Your task to perform on an android device: Open the calendar and show me this week's events Image 0: 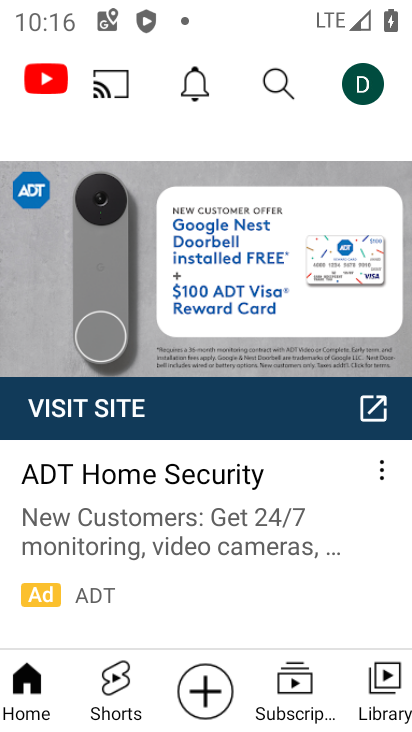
Step 0: press home button
Your task to perform on an android device: Open the calendar and show me this week's events Image 1: 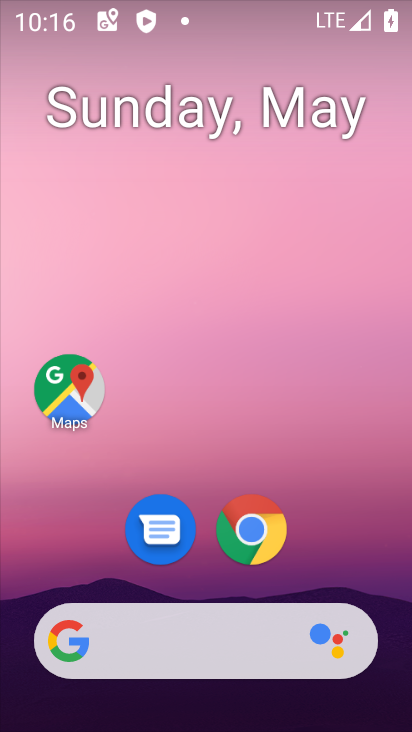
Step 1: drag from (366, 553) to (247, 110)
Your task to perform on an android device: Open the calendar and show me this week's events Image 2: 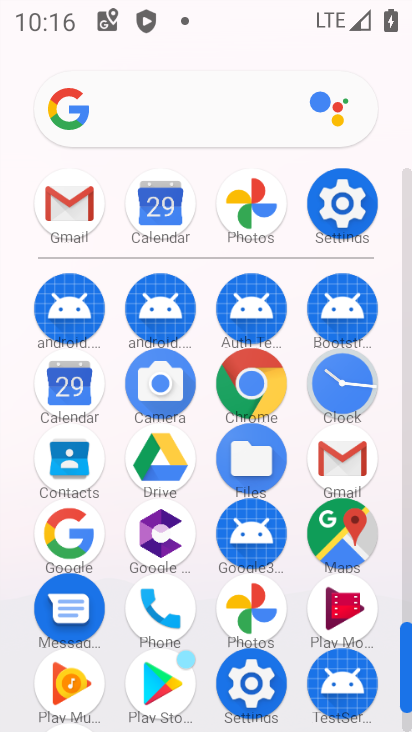
Step 2: click (76, 480)
Your task to perform on an android device: Open the calendar and show me this week's events Image 3: 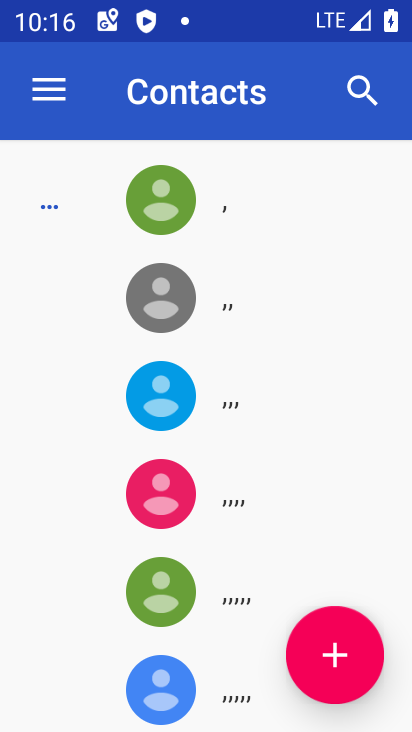
Step 3: press home button
Your task to perform on an android device: Open the calendar and show me this week's events Image 4: 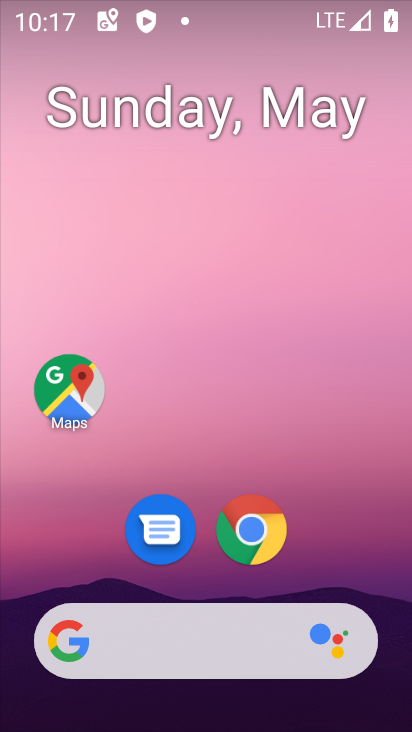
Step 4: drag from (282, 318) to (214, 8)
Your task to perform on an android device: Open the calendar and show me this week's events Image 5: 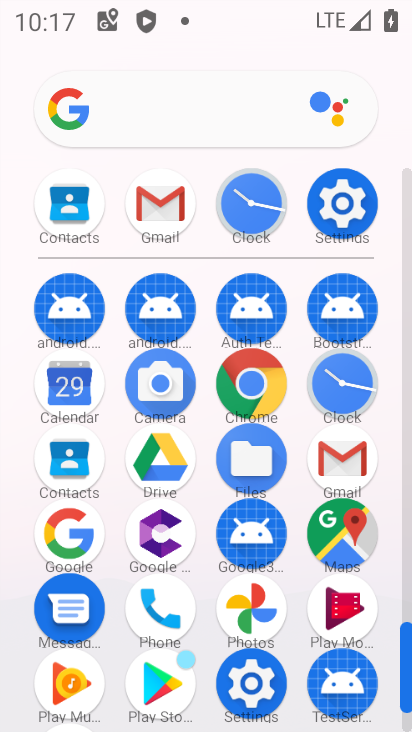
Step 5: click (74, 404)
Your task to perform on an android device: Open the calendar and show me this week's events Image 6: 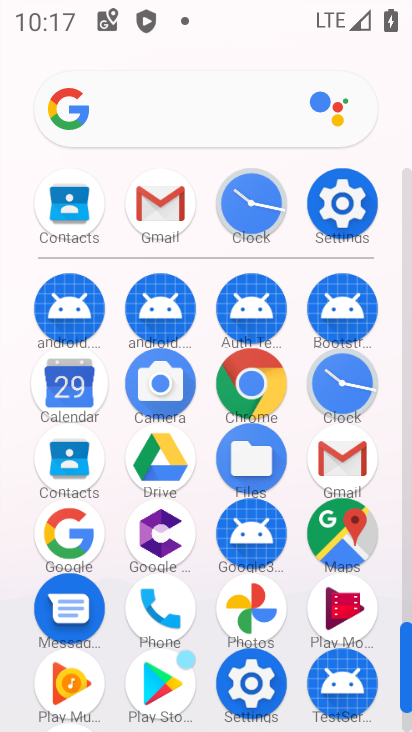
Step 6: task complete